Your task to perform on an android device: Open Chrome and go to the settings page Image 0: 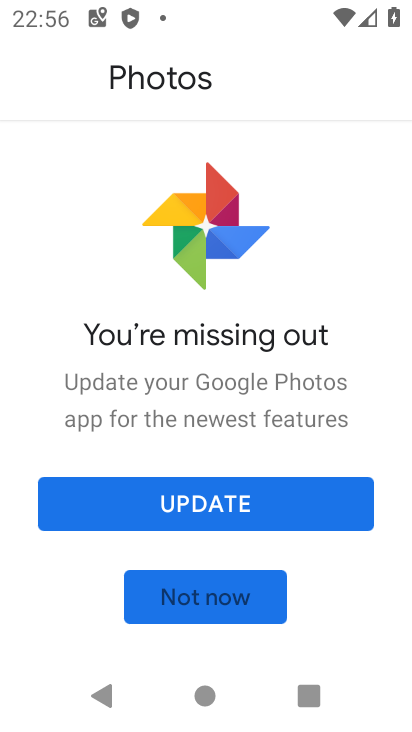
Step 0: press home button
Your task to perform on an android device: Open Chrome and go to the settings page Image 1: 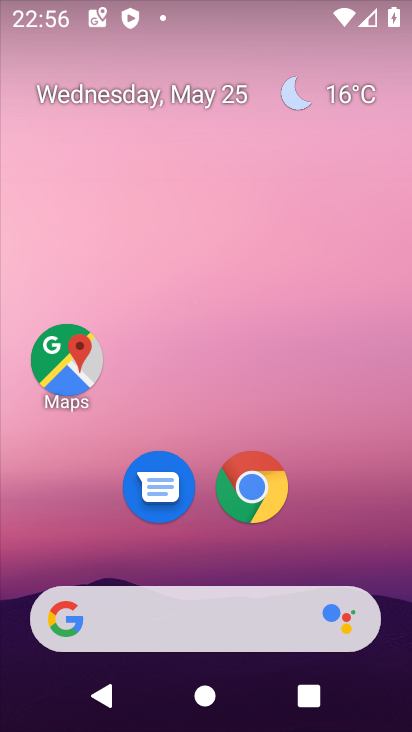
Step 1: click (259, 470)
Your task to perform on an android device: Open Chrome and go to the settings page Image 2: 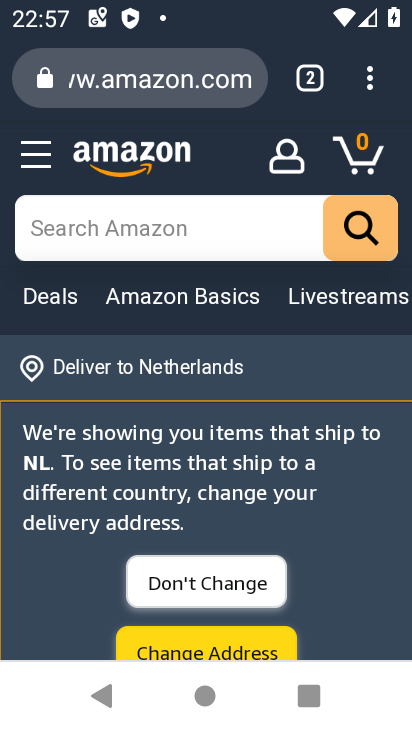
Step 2: click (376, 74)
Your task to perform on an android device: Open Chrome and go to the settings page Image 3: 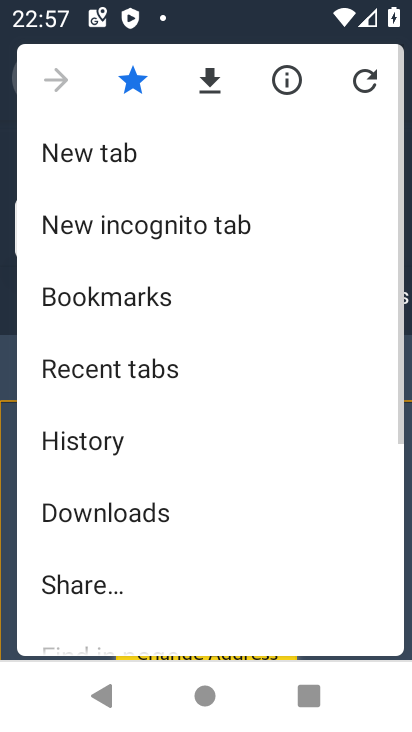
Step 3: drag from (208, 585) to (260, 226)
Your task to perform on an android device: Open Chrome and go to the settings page Image 4: 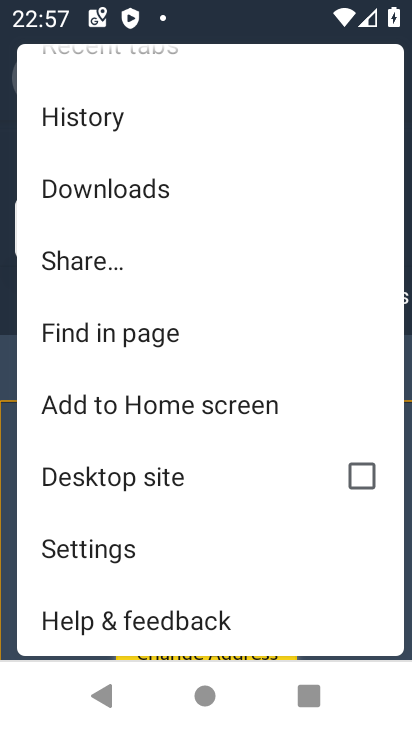
Step 4: click (121, 543)
Your task to perform on an android device: Open Chrome and go to the settings page Image 5: 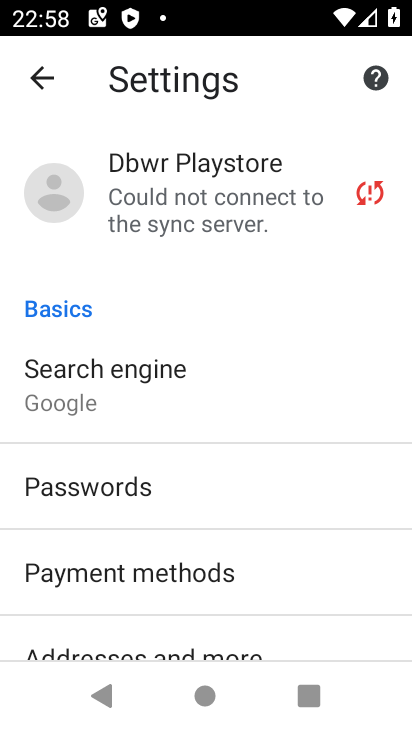
Step 5: task complete